Your task to perform on an android device: change the upload size in google photos Image 0: 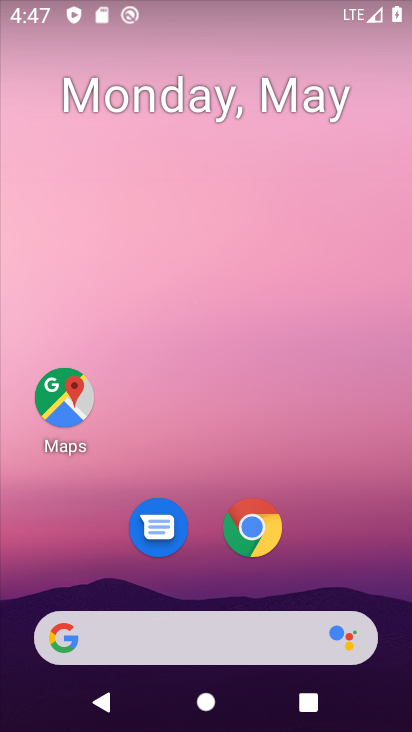
Step 0: drag from (389, 696) to (300, 222)
Your task to perform on an android device: change the upload size in google photos Image 1: 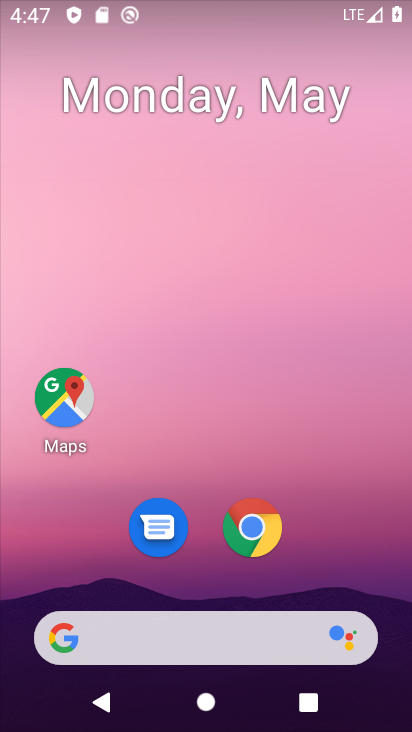
Step 1: drag from (391, 689) to (308, 100)
Your task to perform on an android device: change the upload size in google photos Image 2: 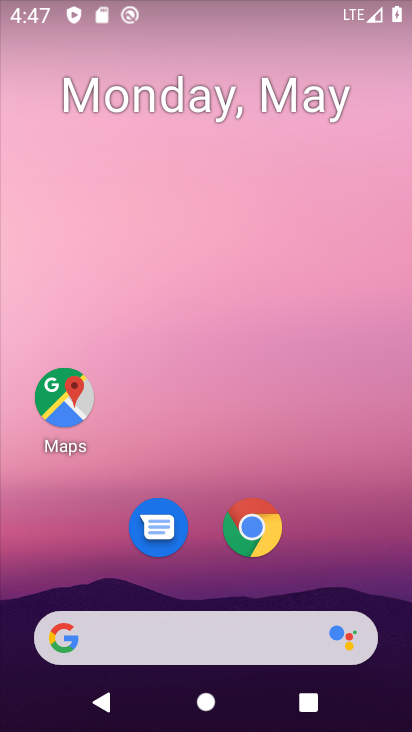
Step 2: drag from (388, 719) to (305, 85)
Your task to perform on an android device: change the upload size in google photos Image 3: 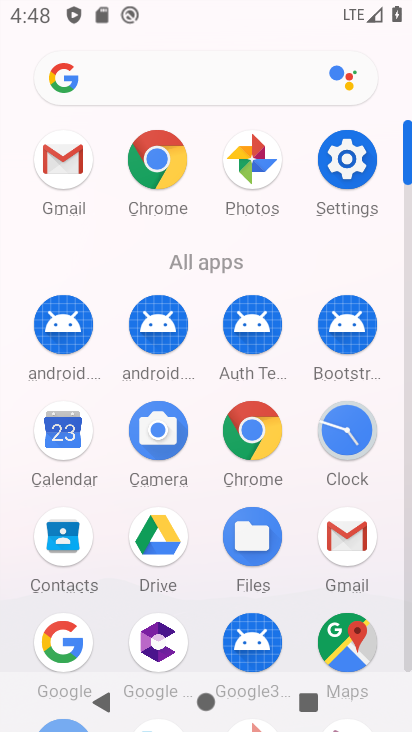
Step 3: drag from (410, 119) to (406, 67)
Your task to perform on an android device: change the upload size in google photos Image 4: 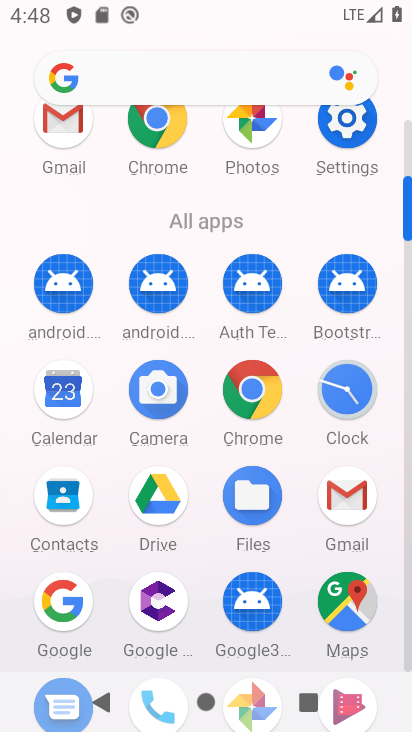
Step 4: drag from (405, 173) to (411, 91)
Your task to perform on an android device: change the upload size in google photos Image 5: 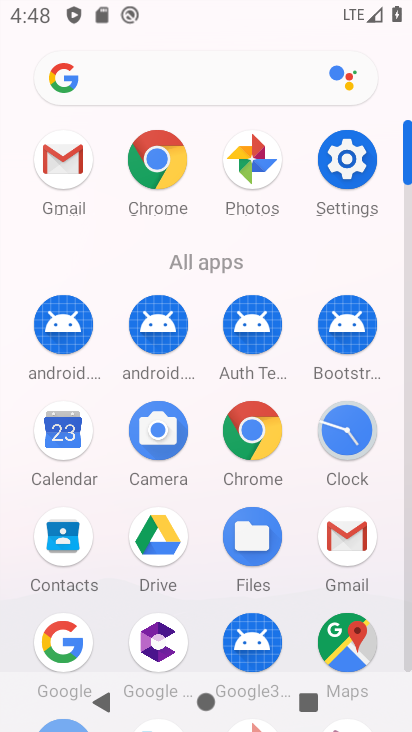
Step 5: drag from (405, 109) to (408, 43)
Your task to perform on an android device: change the upload size in google photos Image 6: 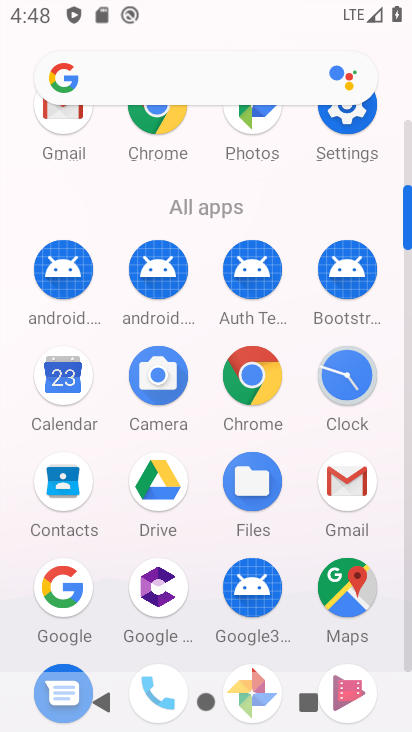
Step 6: drag from (407, 191) to (407, 106)
Your task to perform on an android device: change the upload size in google photos Image 7: 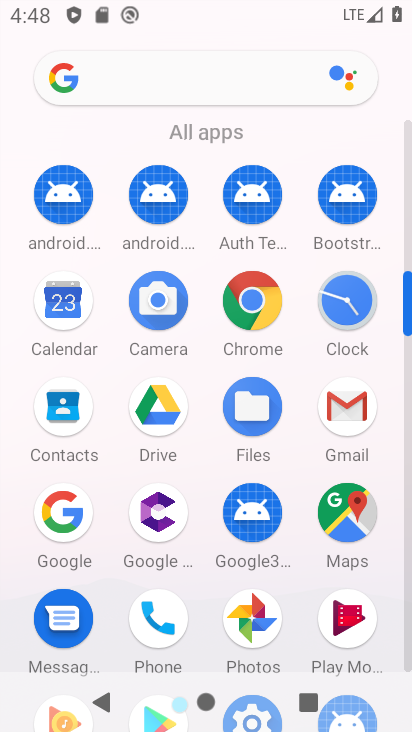
Step 7: click (245, 611)
Your task to perform on an android device: change the upload size in google photos Image 8: 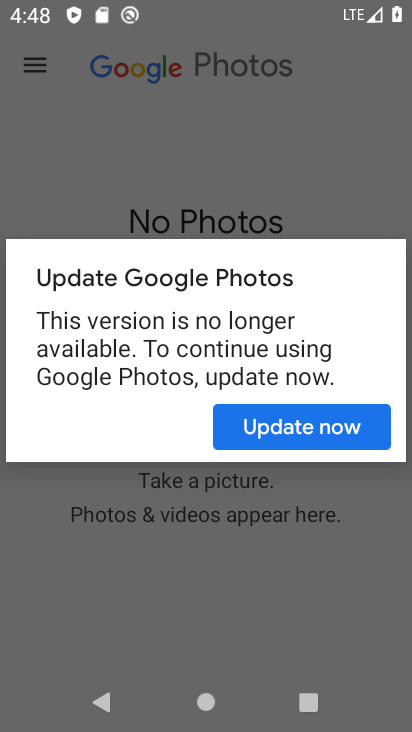
Step 8: click (275, 432)
Your task to perform on an android device: change the upload size in google photos Image 9: 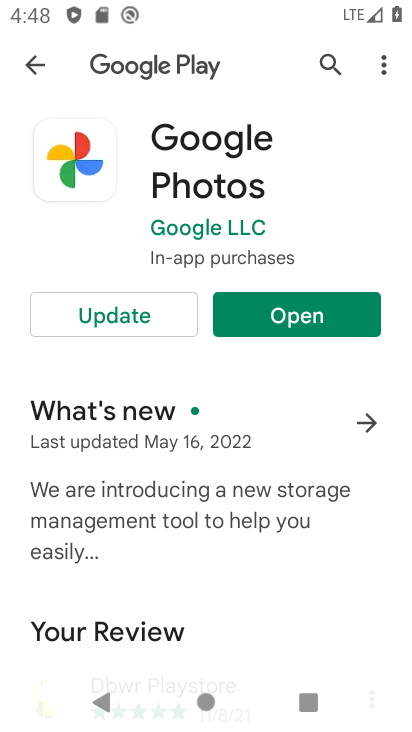
Step 9: click (178, 314)
Your task to perform on an android device: change the upload size in google photos Image 10: 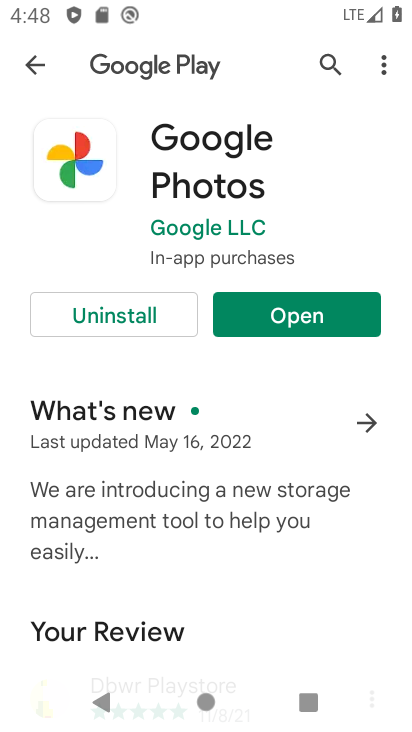
Step 10: click (268, 307)
Your task to perform on an android device: change the upload size in google photos Image 11: 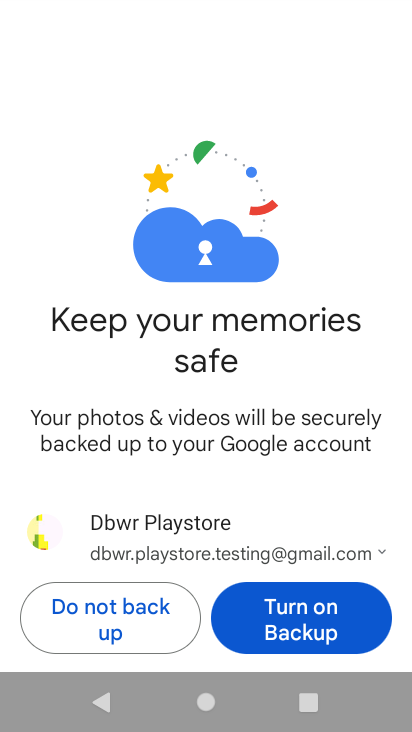
Step 11: press home button
Your task to perform on an android device: change the upload size in google photos Image 12: 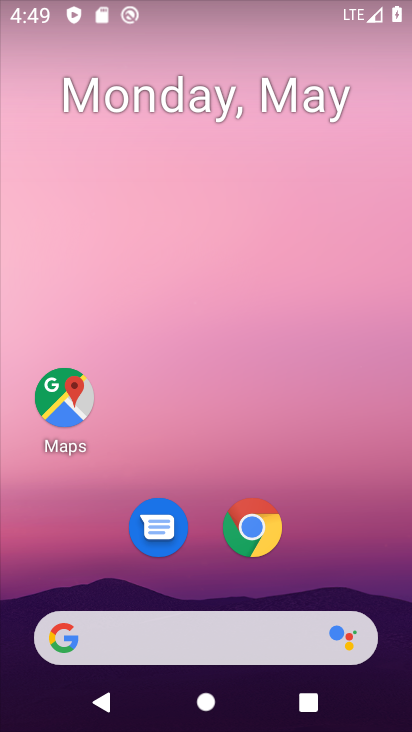
Step 12: drag from (363, 477) to (280, 214)
Your task to perform on an android device: change the upload size in google photos Image 13: 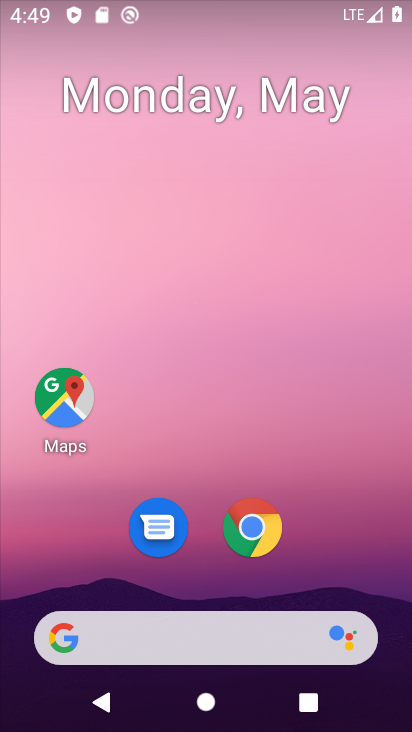
Step 13: drag from (379, 499) to (290, 117)
Your task to perform on an android device: change the upload size in google photos Image 14: 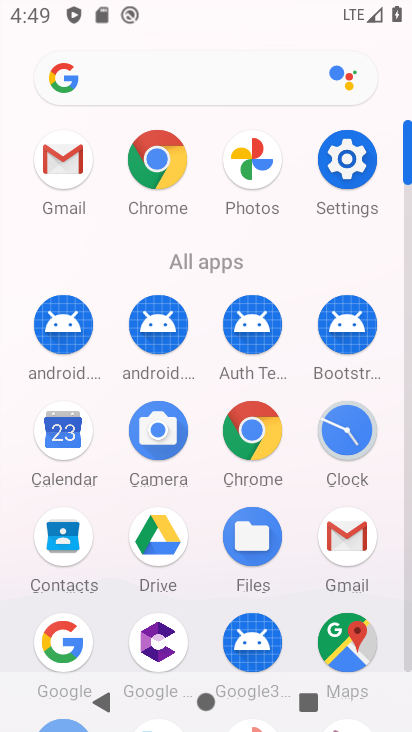
Step 14: click (242, 159)
Your task to perform on an android device: change the upload size in google photos Image 15: 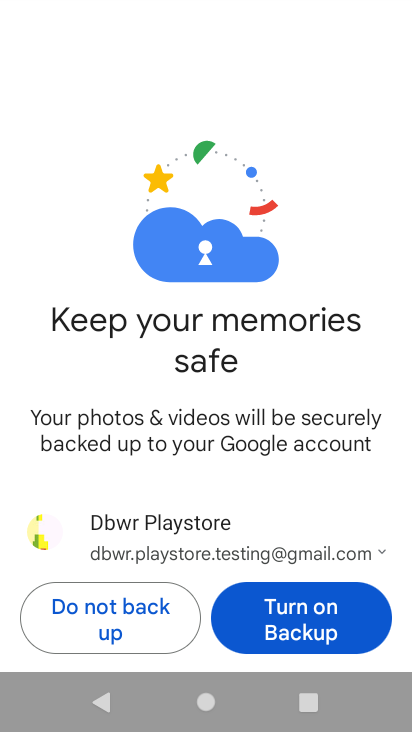
Step 15: task complete